Your task to perform on an android device: Go to Android settings Image 0: 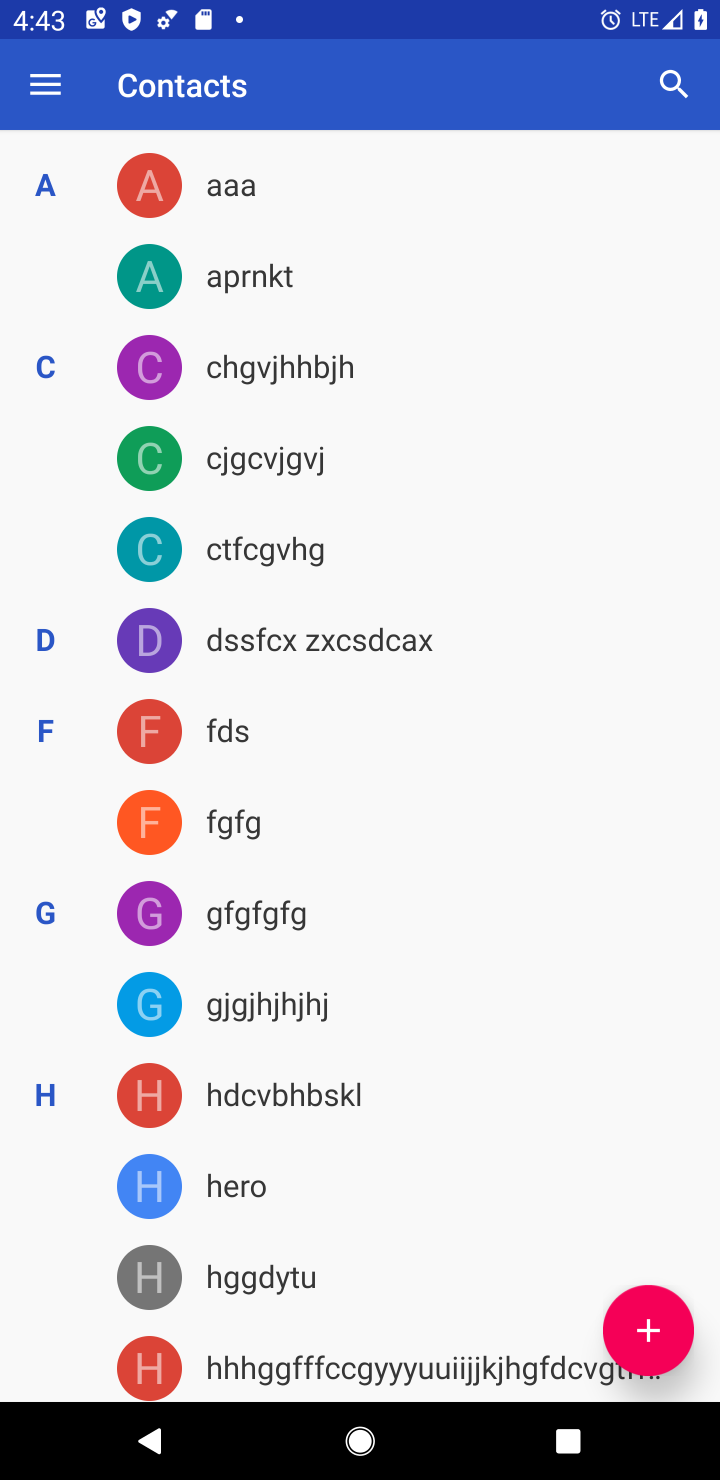
Step 0: press home button
Your task to perform on an android device: Go to Android settings Image 1: 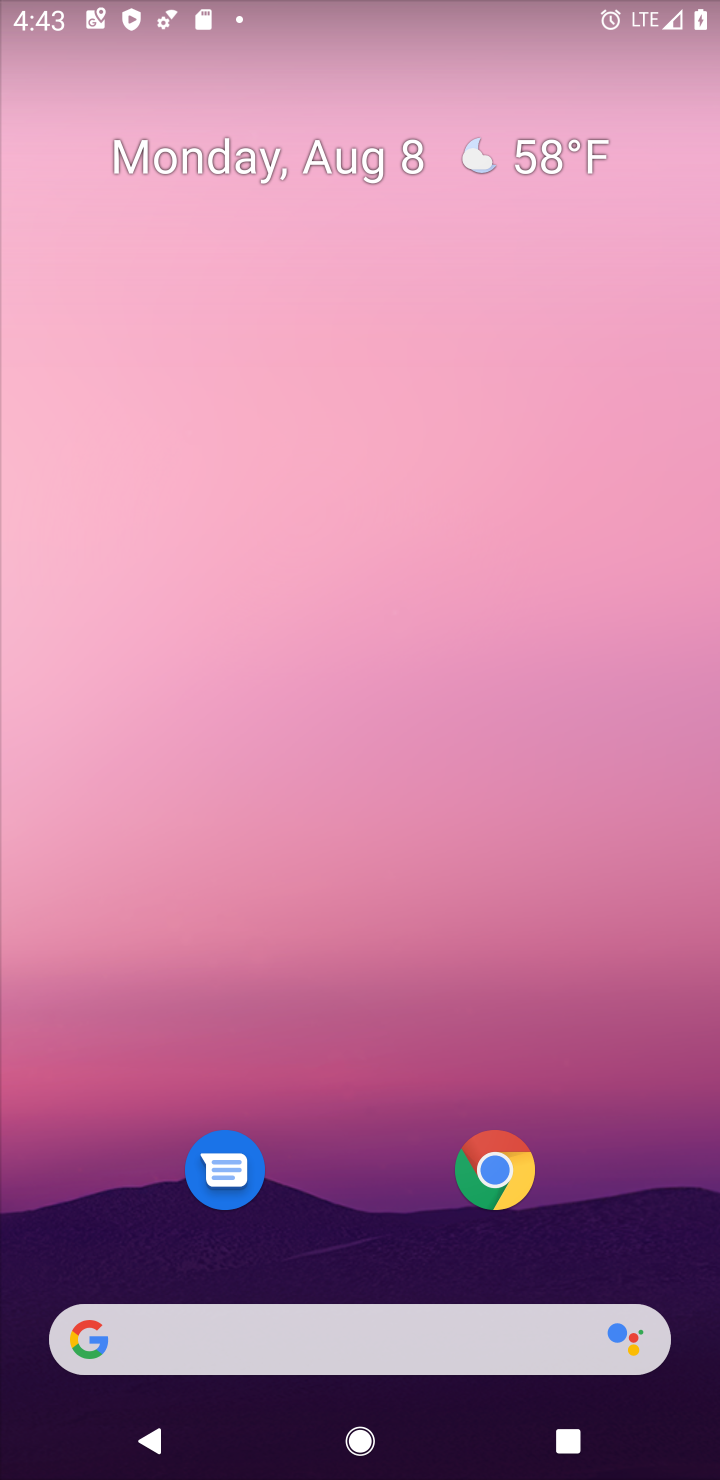
Step 1: drag from (364, 642) to (361, 332)
Your task to perform on an android device: Go to Android settings Image 2: 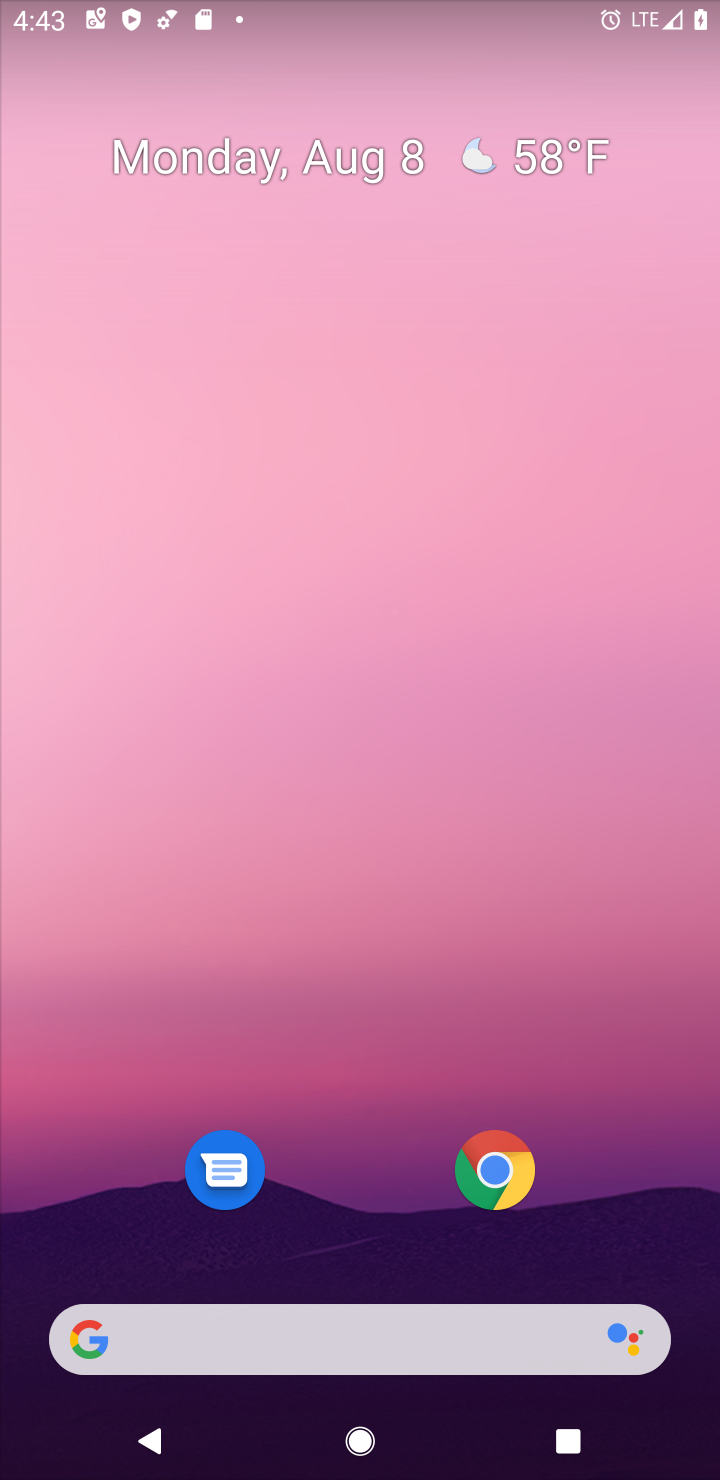
Step 2: drag from (351, 1211) to (351, 418)
Your task to perform on an android device: Go to Android settings Image 3: 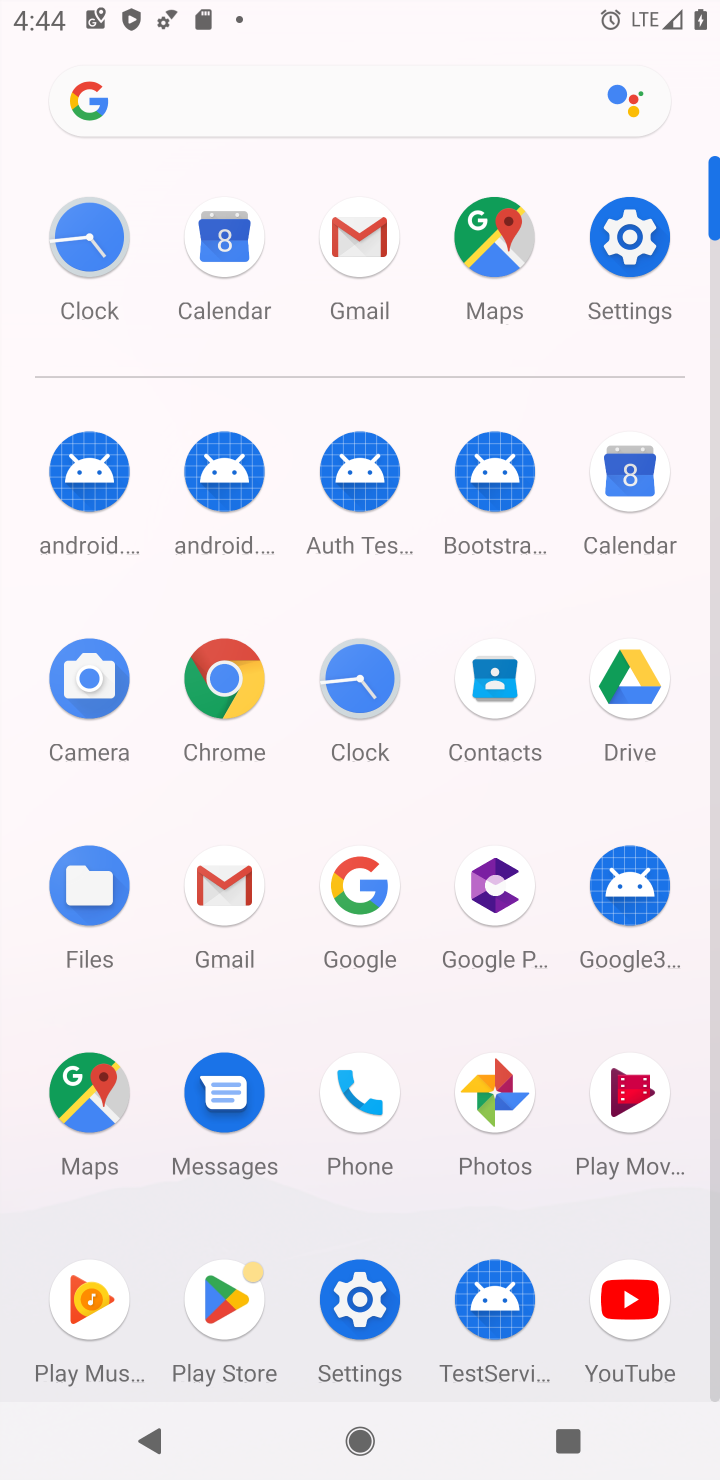
Step 3: click (631, 274)
Your task to perform on an android device: Go to Android settings Image 4: 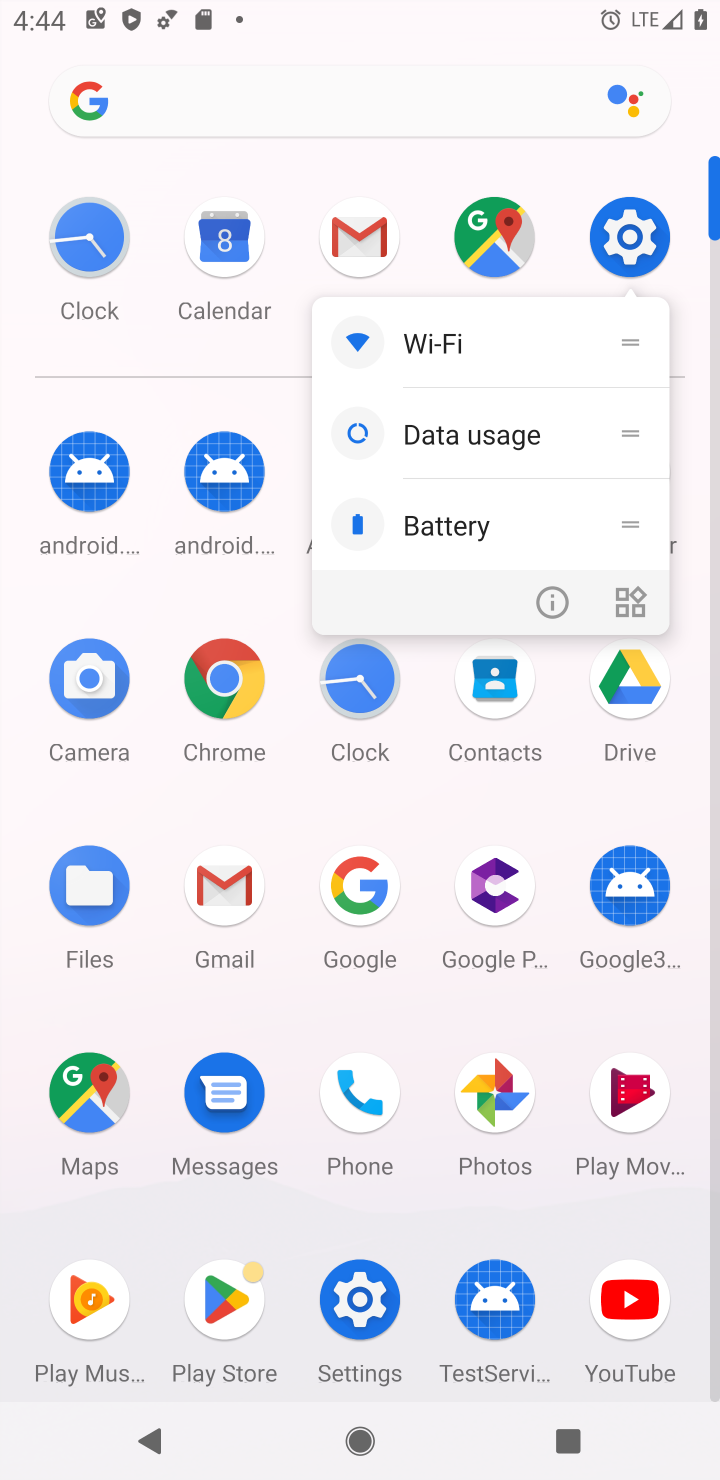
Step 4: click (642, 223)
Your task to perform on an android device: Go to Android settings Image 5: 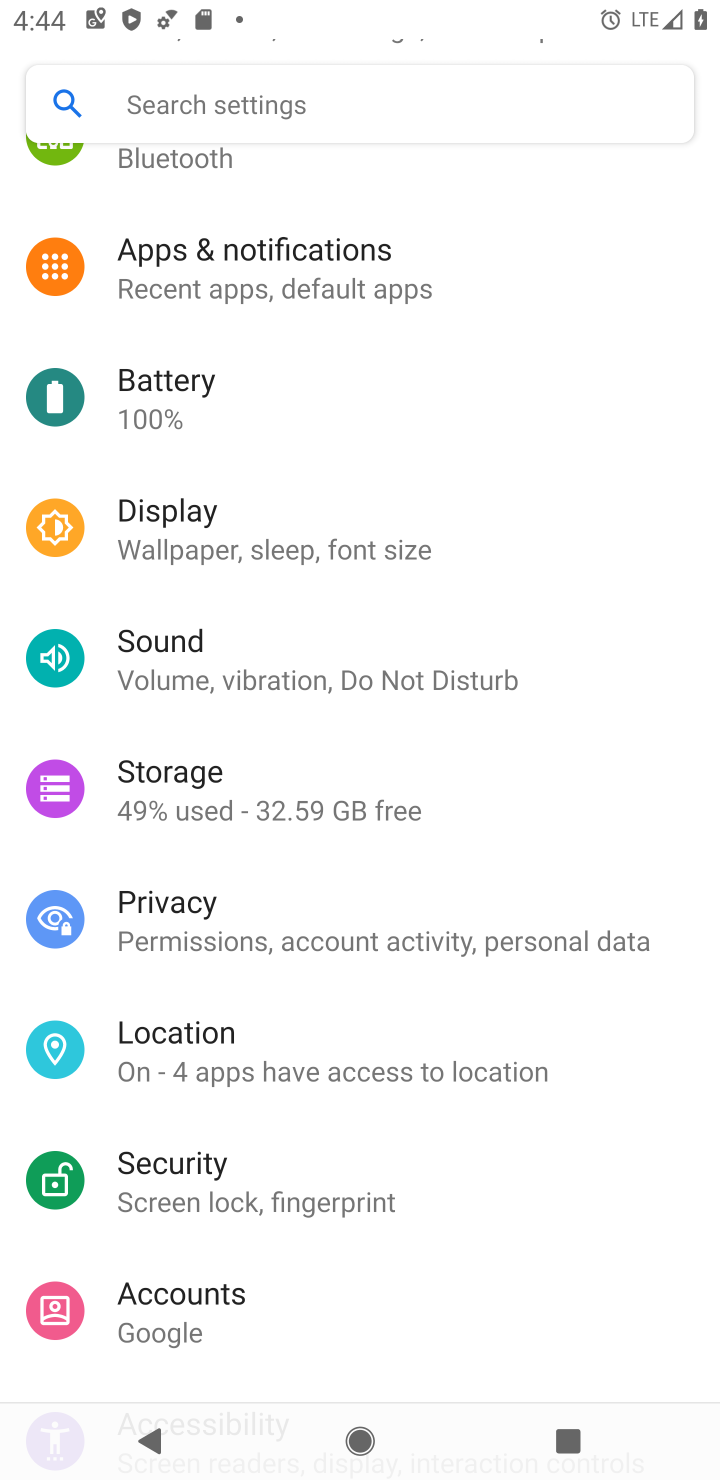
Step 5: task complete